Your task to perform on an android device: toggle notification dots Image 0: 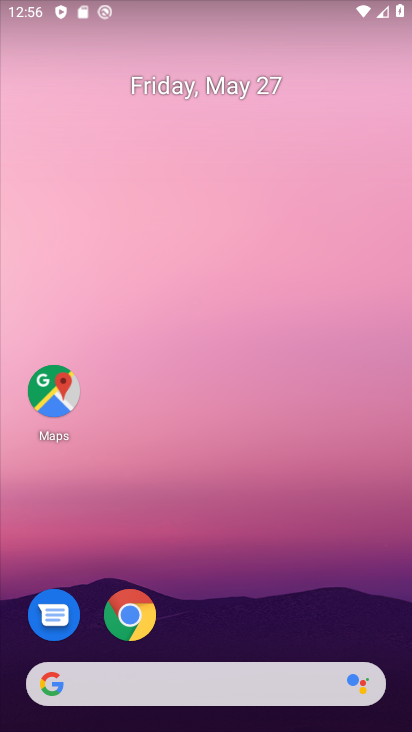
Step 0: press home button
Your task to perform on an android device: toggle notification dots Image 1: 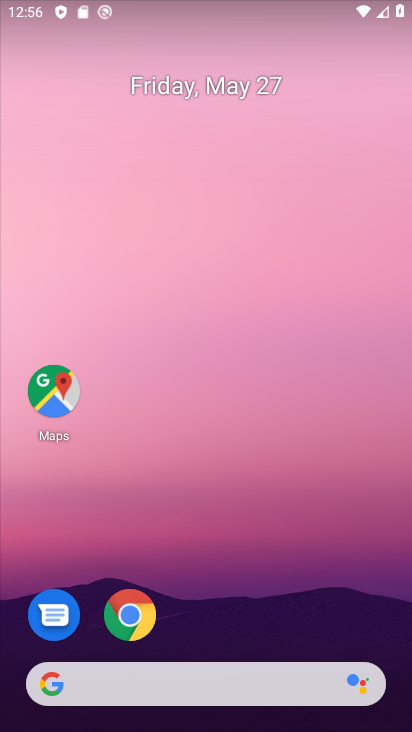
Step 1: drag from (249, 628) to (251, 196)
Your task to perform on an android device: toggle notification dots Image 2: 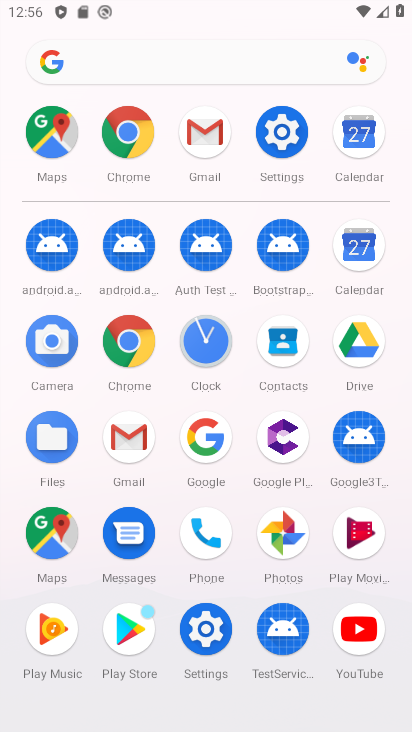
Step 2: click (276, 153)
Your task to perform on an android device: toggle notification dots Image 3: 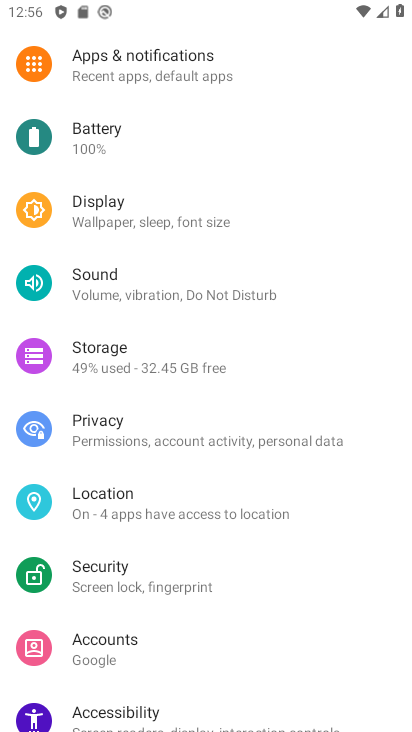
Step 3: click (127, 81)
Your task to perform on an android device: toggle notification dots Image 4: 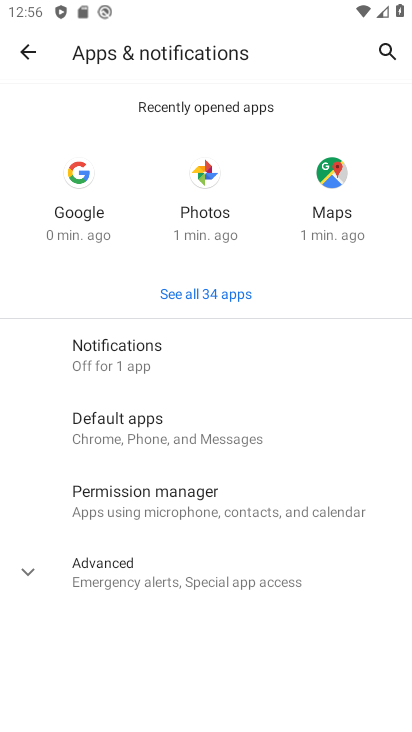
Step 4: click (125, 360)
Your task to perform on an android device: toggle notification dots Image 5: 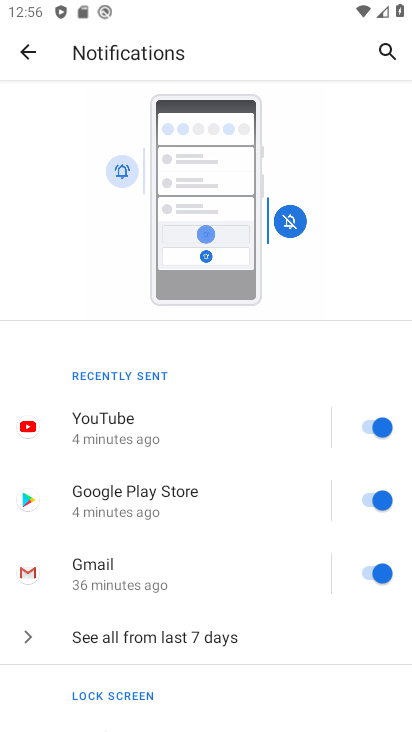
Step 5: drag from (260, 621) to (269, 119)
Your task to perform on an android device: toggle notification dots Image 6: 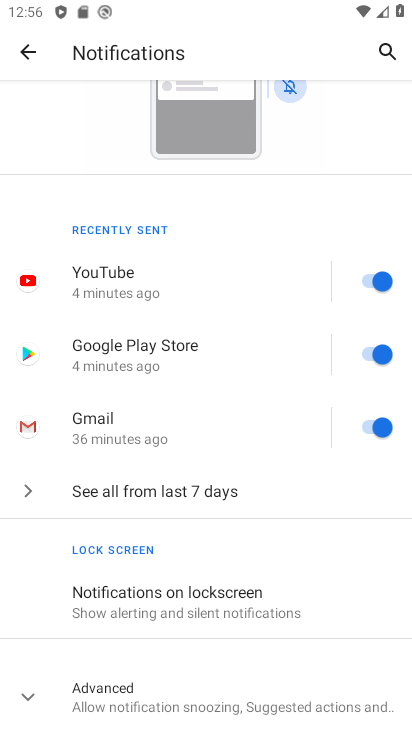
Step 6: click (160, 701)
Your task to perform on an android device: toggle notification dots Image 7: 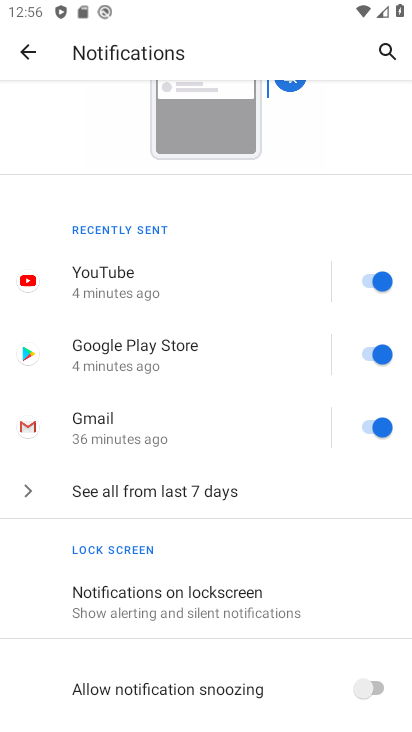
Step 7: drag from (310, 575) to (321, 211)
Your task to perform on an android device: toggle notification dots Image 8: 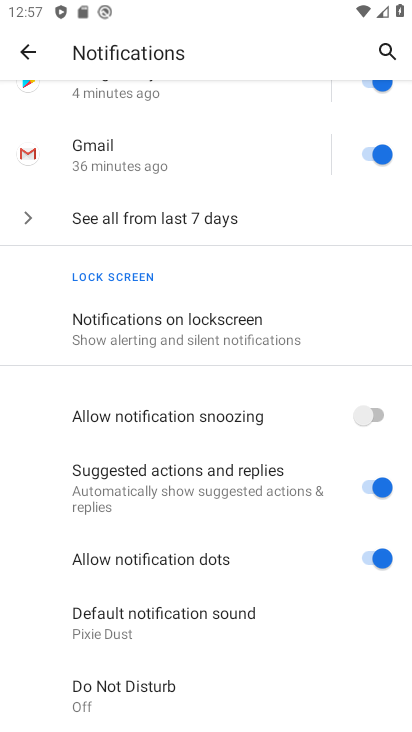
Step 8: click (374, 555)
Your task to perform on an android device: toggle notification dots Image 9: 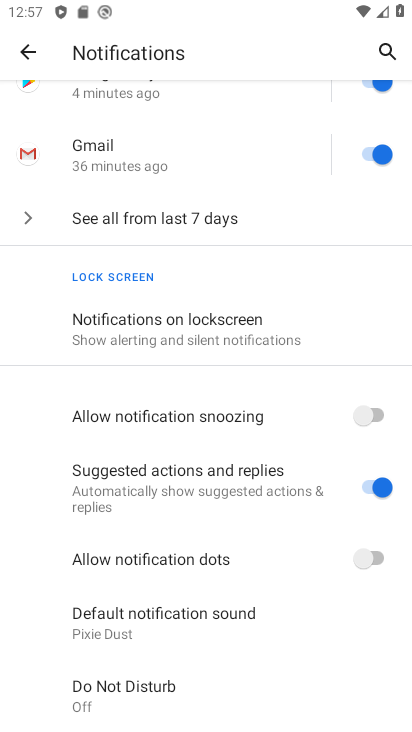
Step 9: task complete